Your task to perform on an android device: change notifications settings Image 0: 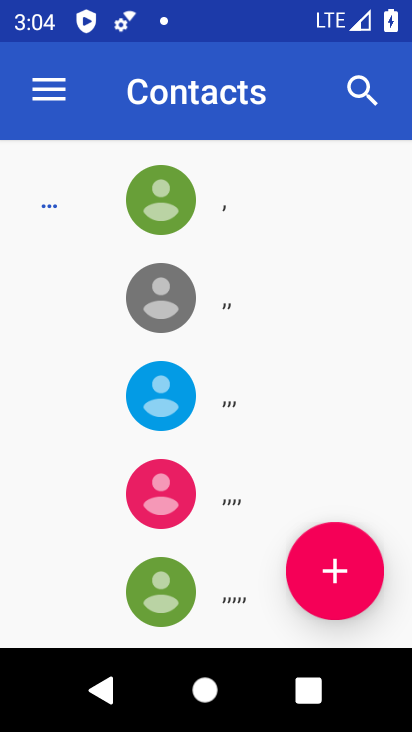
Step 0: press home button
Your task to perform on an android device: change notifications settings Image 1: 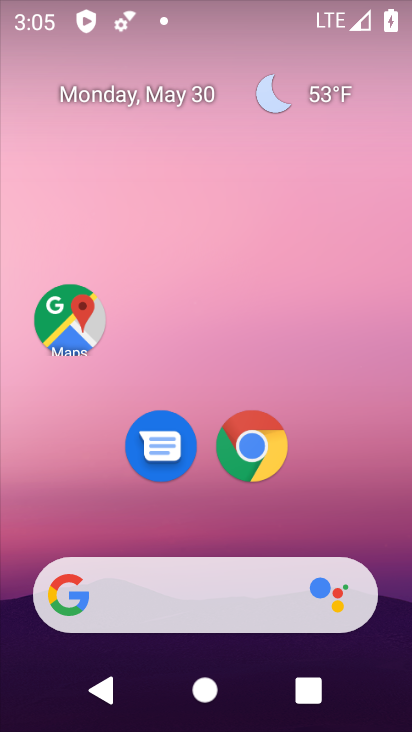
Step 1: drag from (317, 509) to (187, 33)
Your task to perform on an android device: change notifications settings Image 2: 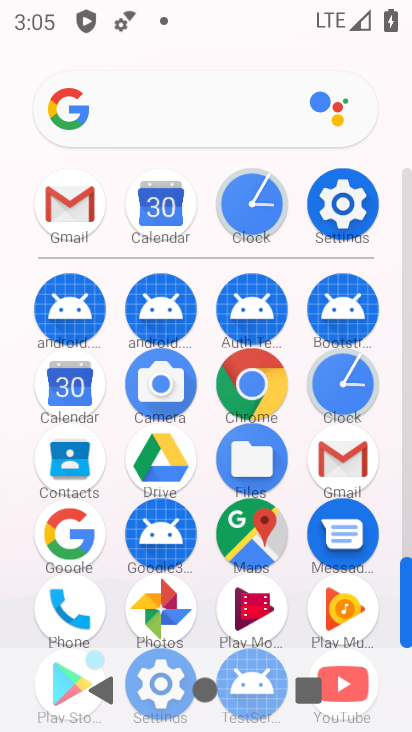
Step 2: click (344, 201)
Your task to perform on an android device: change notifications settings Image 3: 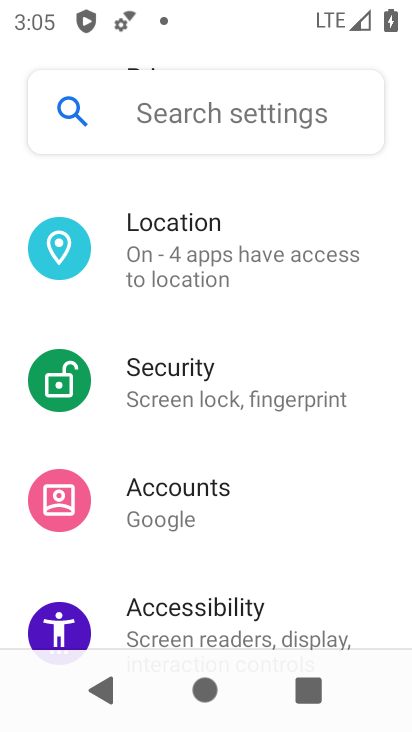
Step 3: drag from (223, 536) to (151, 226)
Your task to perform on an android device: change notifications settings Image 4: 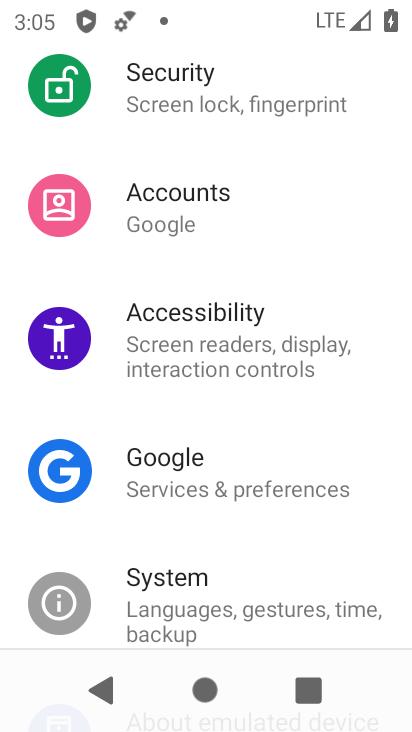
Step 4: drag from (210, 271) to (241, 396)
Your task to perform on an android device: change notifications settings Image 5: 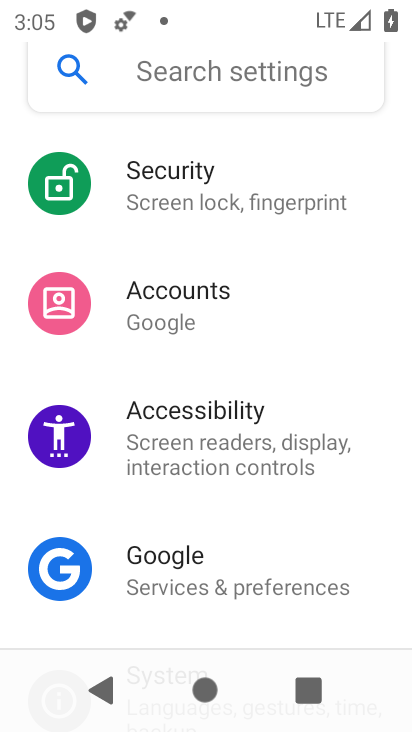
Step 5: drag from (254, 188) to (282, 373)
Your task to perform on an android device: change notifications settings Image 6: 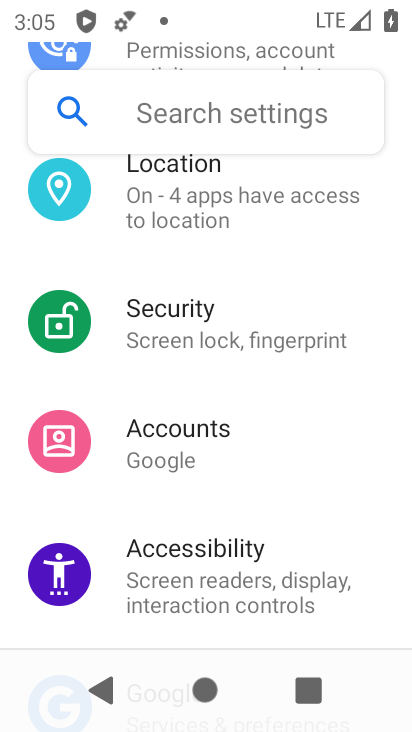
Step 6: drag from (262, 168) to (279, 336)
Your task to perform on an android device: change notifications settings Image 7: 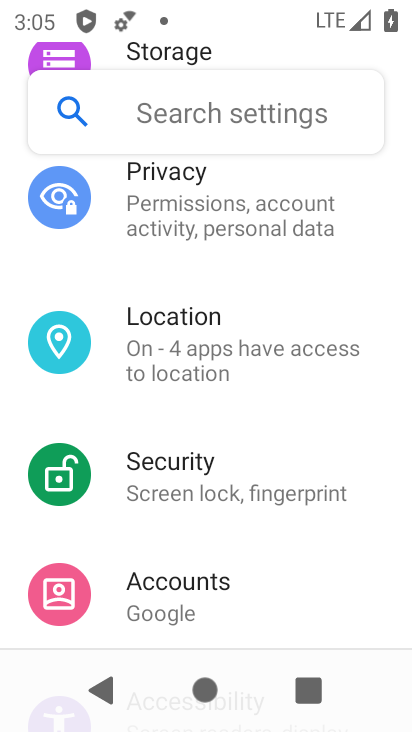
Step 7: drag from (255, 183) to (257, 350)
Your task to perform on an android device: change notifications settings Image 8: 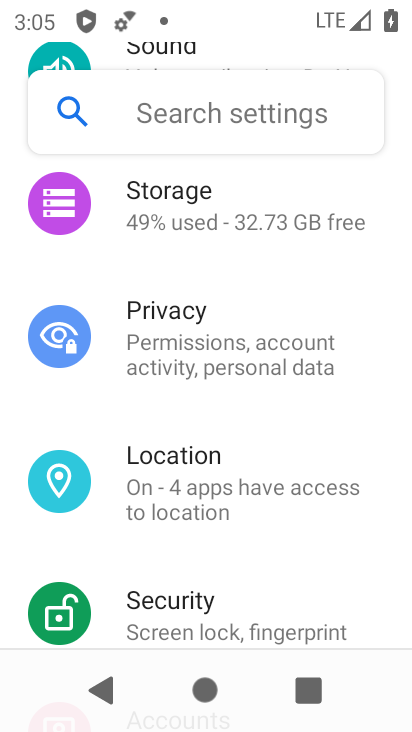
Step 8: drag from (241, 189) to (212, 344)
Your task to perform on an android device: change notifications settings Image 9: 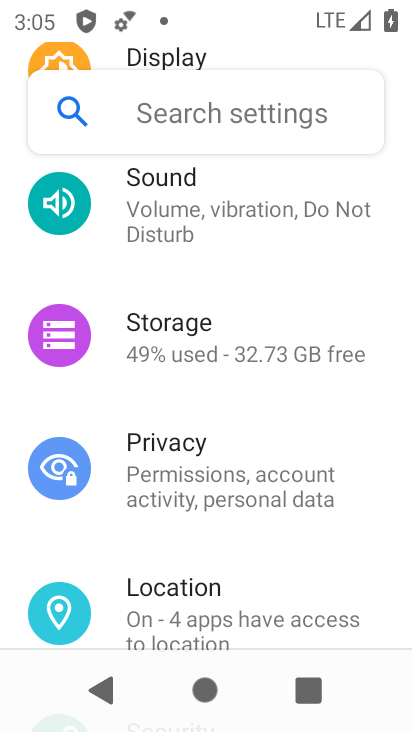
Step 9: drag from (243, 183) to (187, 357)
Your task to perform on an android device: change notifications settings Image 10: 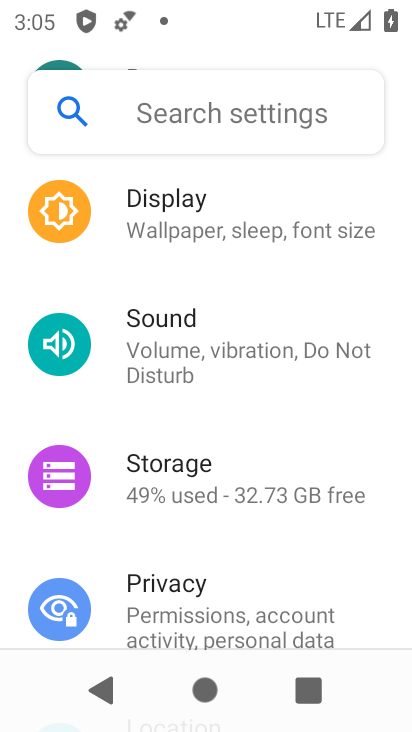
Step 10: drag from (227, 191) to (188, 338)
Your task to perform on an android device: change notifications settings Image 11: 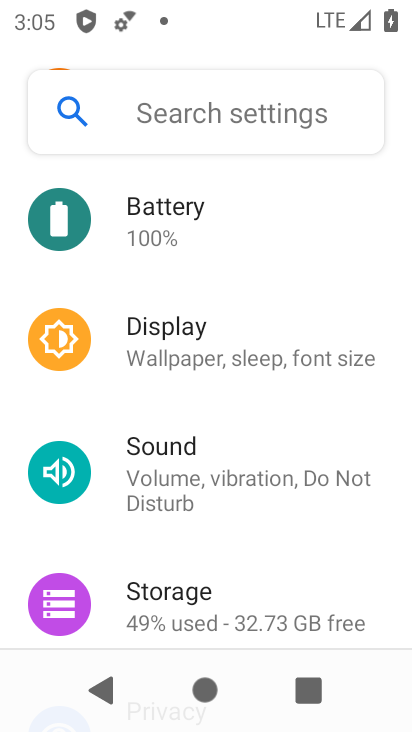
Step 11: drag from (250, 239) to (221, 401)
Your task to perform on an android device: change notifications settings Image 12: 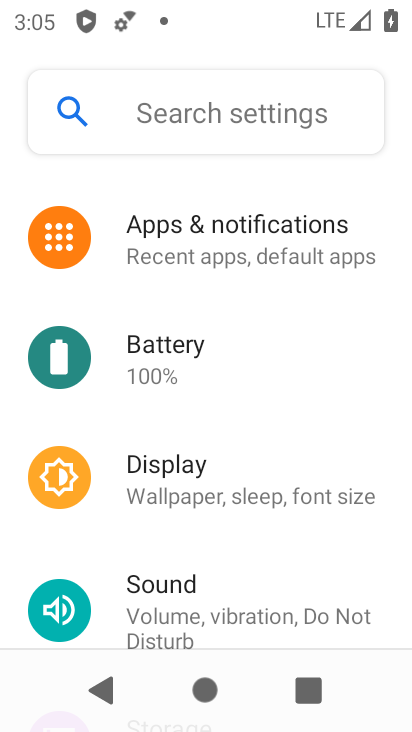
Step 12: click (233, 282)
Your task to perform on an android device: change notifications settings Image 13: 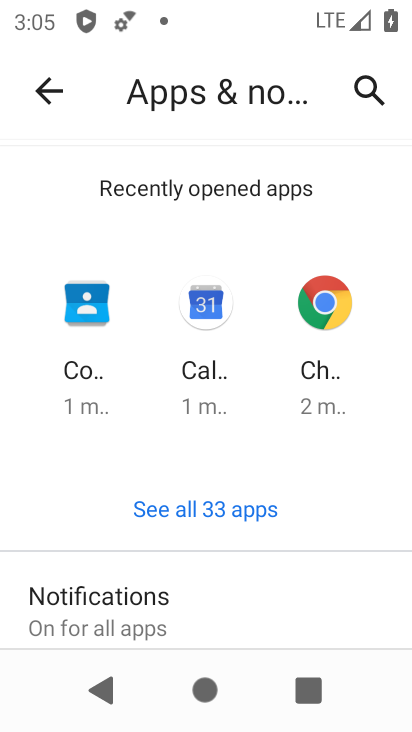
Step 13: click (138, 587)
Your task to perform on an android device: change notifications settings Image 14: 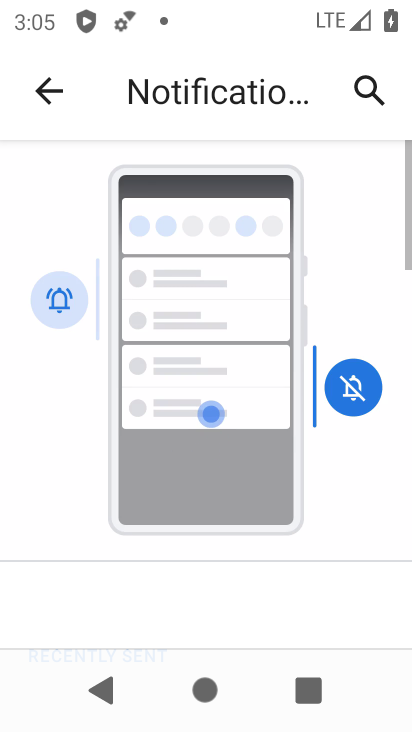
Step 14: drag from (233, 590) to (283, 335)
Your task to perform on an android device: change notifications settings Image 15: 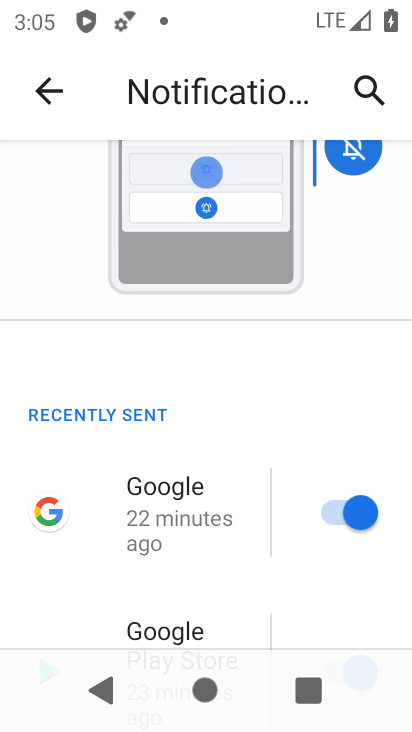
Step 15: drag from (231, 568) to (268, 380)
Your task to perform on an android device: change notifications settings Image 16: 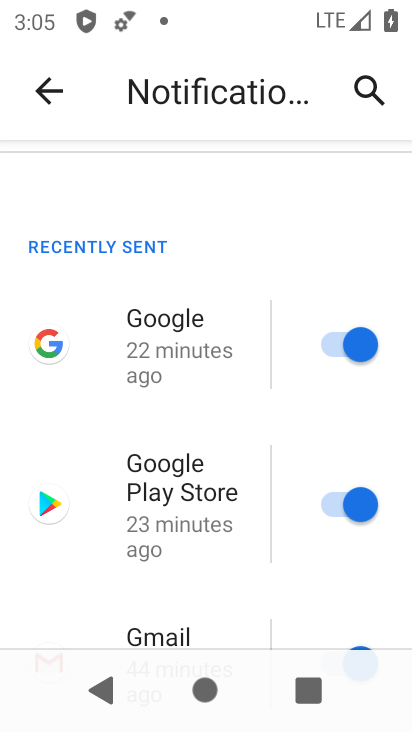
Step 16: drag from (212, 605) to (250, 391)
Your task to perform on an android device: change notifications settings Image 17: 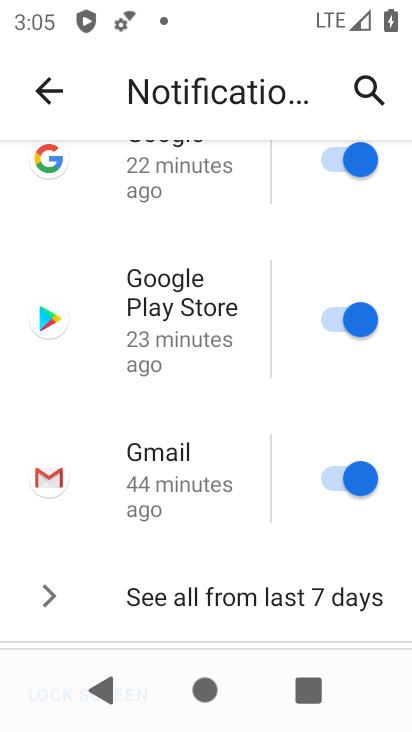
Step 17: drag from (198, 566) to (213, 474)
Your task to perform on an android device: change notifications settings Image 18: 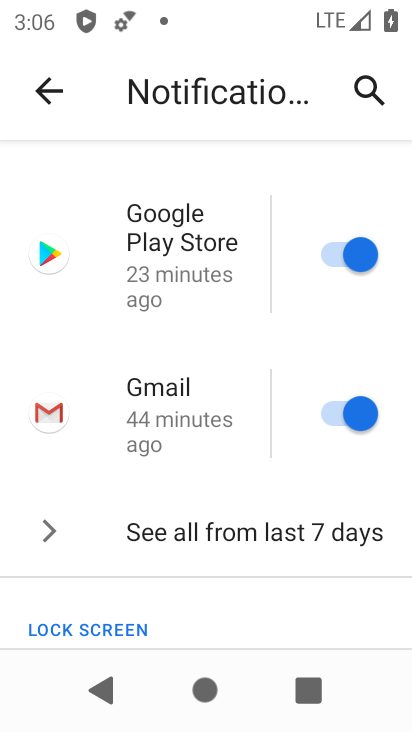
Step 18: drag from (178, 568) to (228, 427)
Your task to perform on an android device: change notifications settings Image 19: 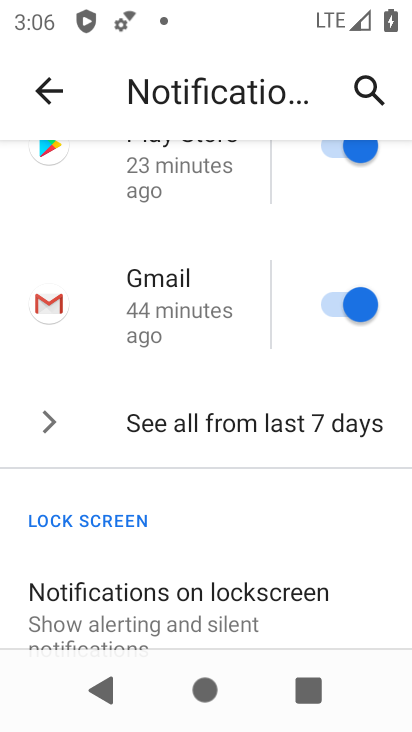
Step 19: drag from (197, 530) to (271, 352)
Your task to perform on an android device: change notifications settings Image 20: 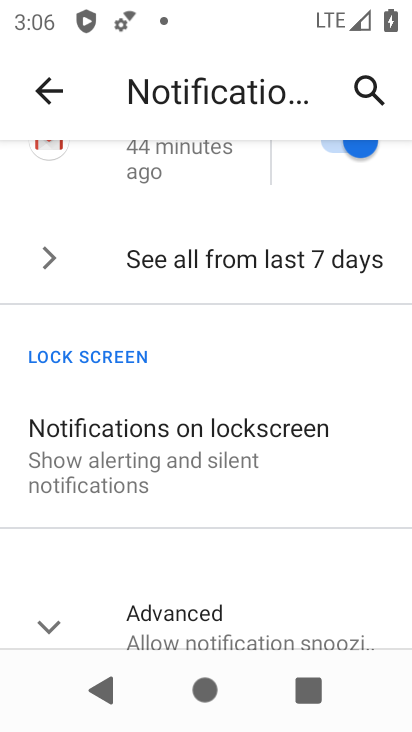
Step 20: drag from (207, 564) to (272, 441)
Your task to perform on an android device: change notifications settings Image 21: 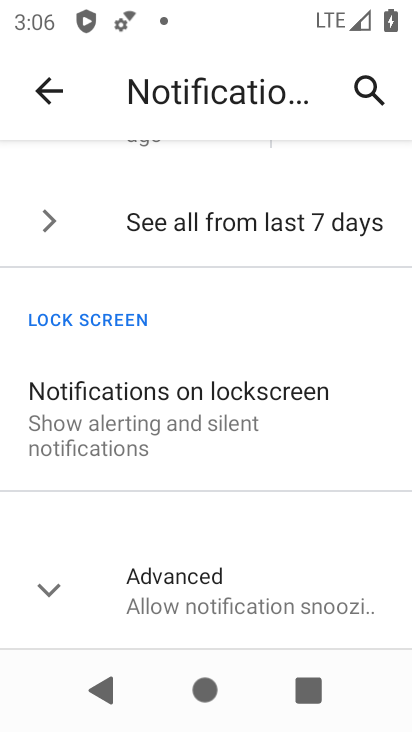
Step 21: click (228, 607)
Your task to perform on an android device: change notifications settings Image 22: 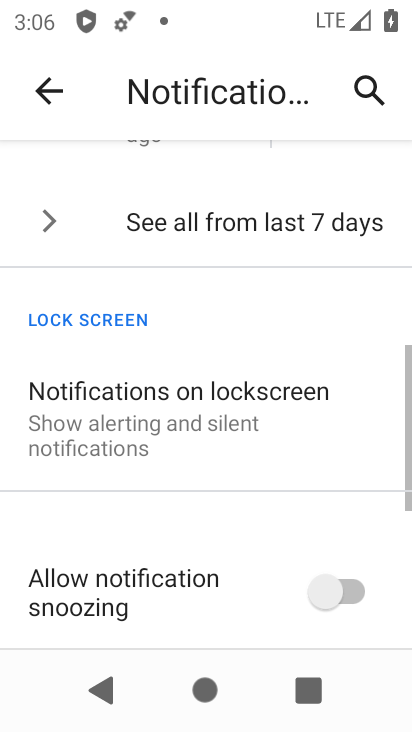
Step 22: drag from (230, 576) to (265, 433)
Your task to perform on an android device: change notifications settings Image 23: 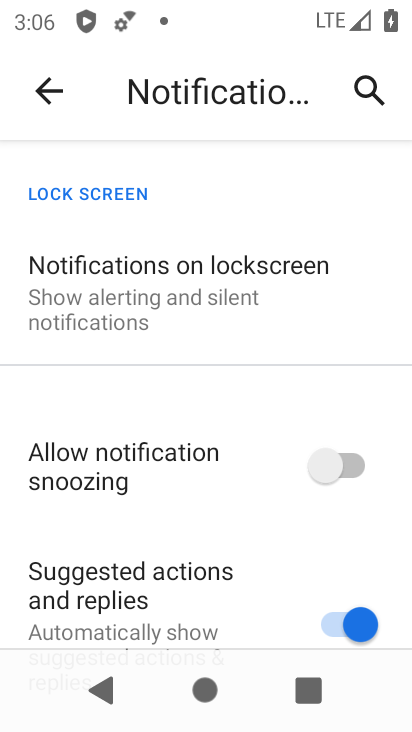
Step 23: drag from (217, 588) to (269, 419)
Your task to perform on an android device: change notifications settings Image 24: 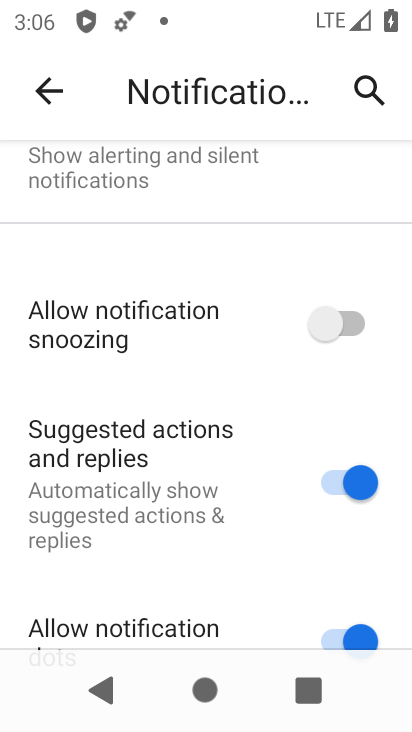
Step 24: click (333, 620)
Your task to perform on an android device: change notifications settings Image 25: 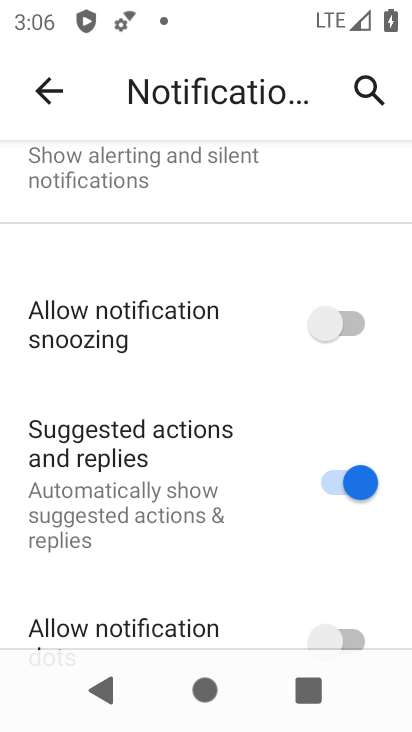
Step 25: task complete